Your task to perform on an android device: What is the news today? Image 0: 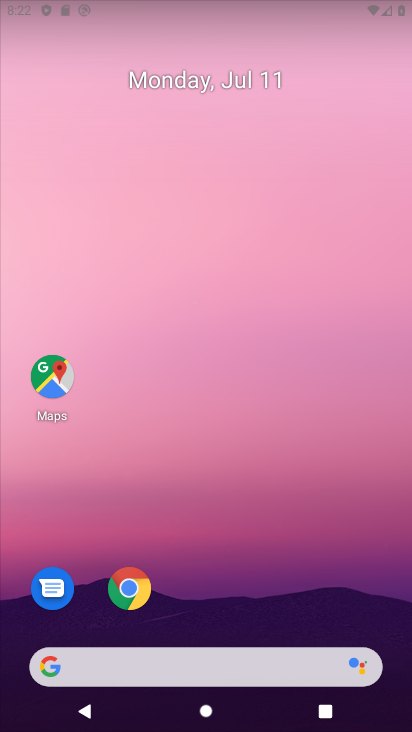
Step 0: drag from (275, 639) to (240, 2)
Your task to perform on an android device: What is the news today? Image 1: 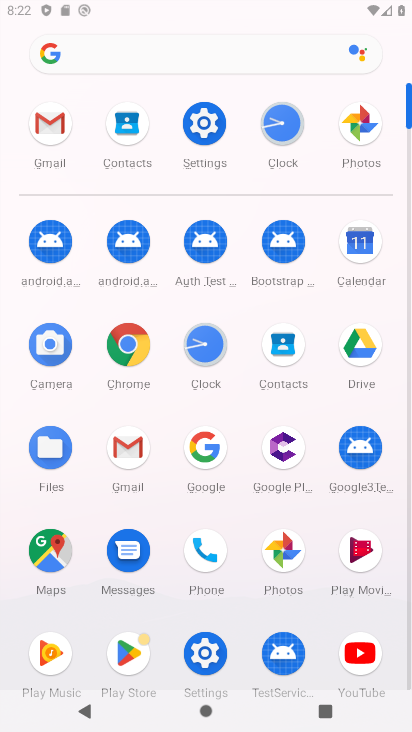
Step 1: click (251, 49)
Your task to perform on an android device: What is the news today? Image 2: 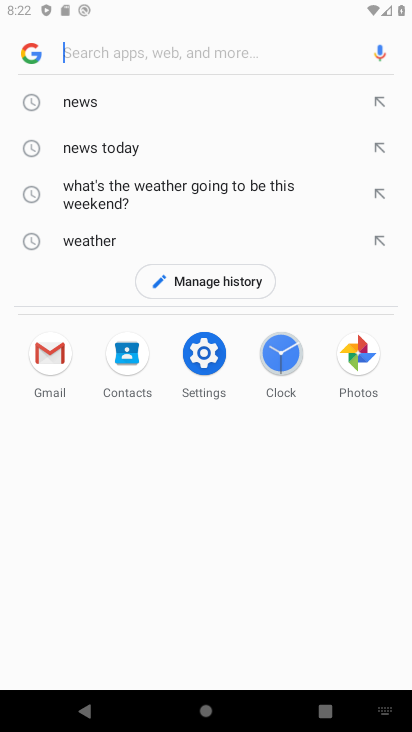
Step 2: click (130, 154)
Your task to perform on an android device: What is the news today? Image 3: 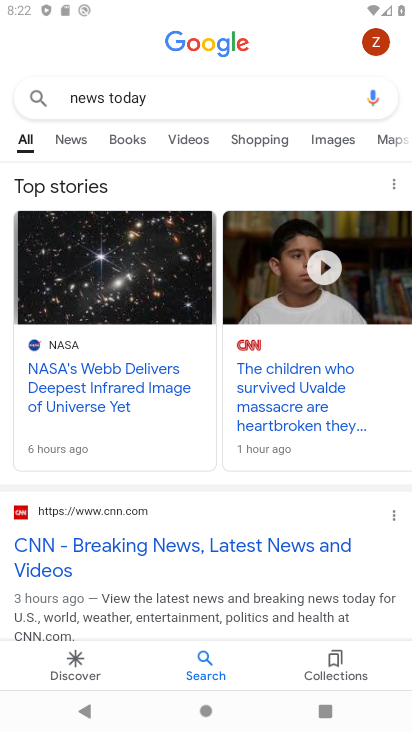
Step 3: task complete